Your task to perform on an android device: toggle sleep mode Image 0: 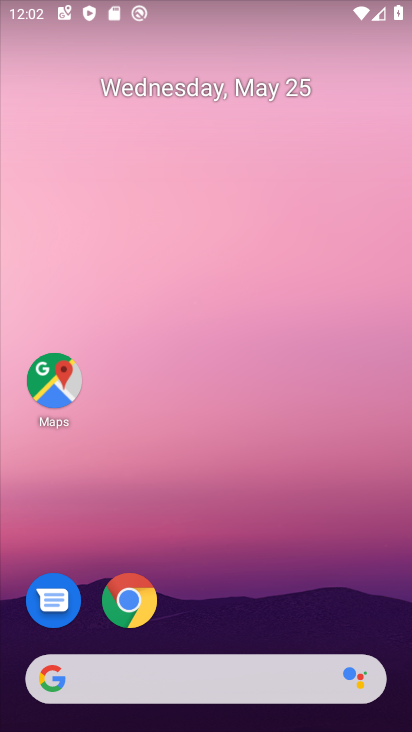
Step 0: drag from (176, 618) to (291, 13)
Your task to perform on an android device: toggle sleep mode Image 1: 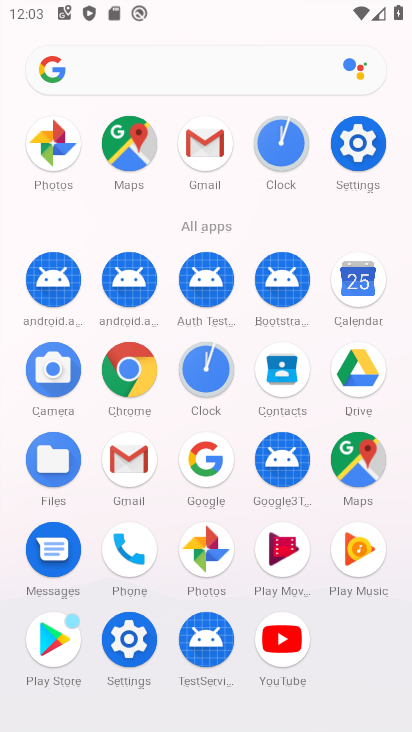
Step 1: click (346, 135)
Your task to perform on an android device: toggle sleep mode Image 2: 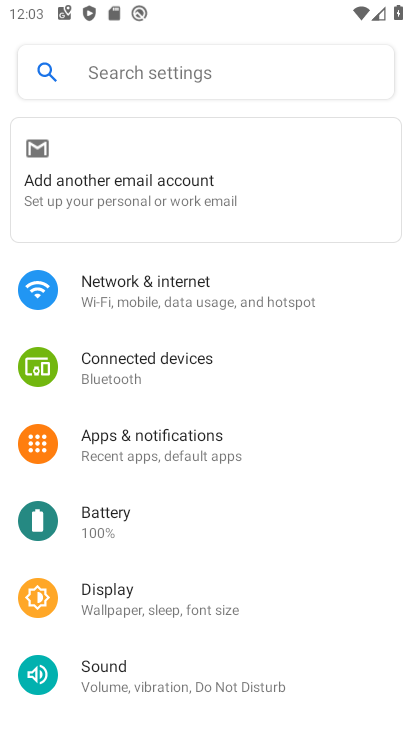
Step 2: task complete